Your task to perform on an android device: Open the calendar app, open the side menu, and click the "Day" option Image 0: 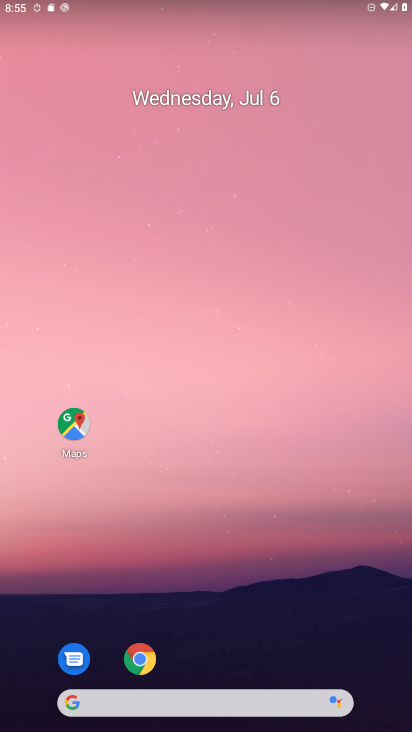
Step 0: drag from (371, 626) to (373, 233)
Your task to perform on an android device: Open the calendar app, open the side menu, and click the "Day" option Image 1: 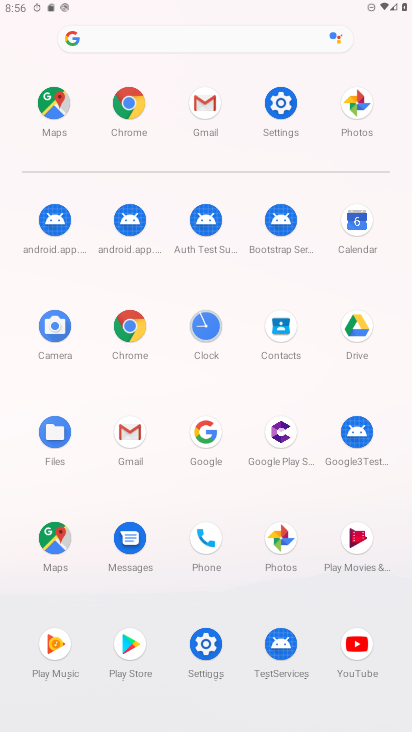
Step 1: click (366, 228)
Your task to perform on an android device: Open the calendar app, open the side menu, and click the "Day" option Image 2: 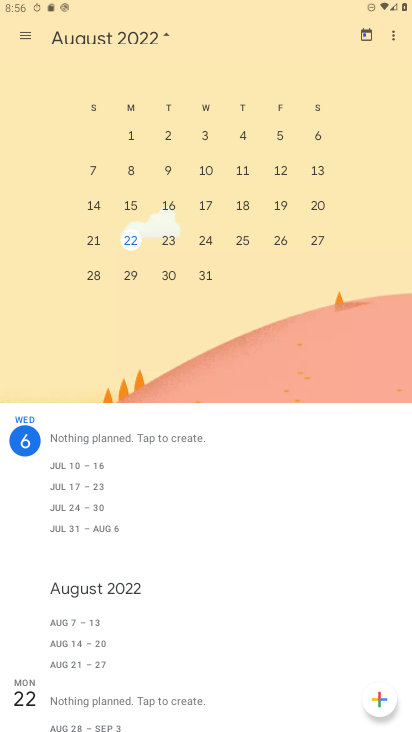
Step 2: click (27, 39)
Your task to perform on an android device: Open the calendar app, open the side menu, and click the "Day" option Image 3: 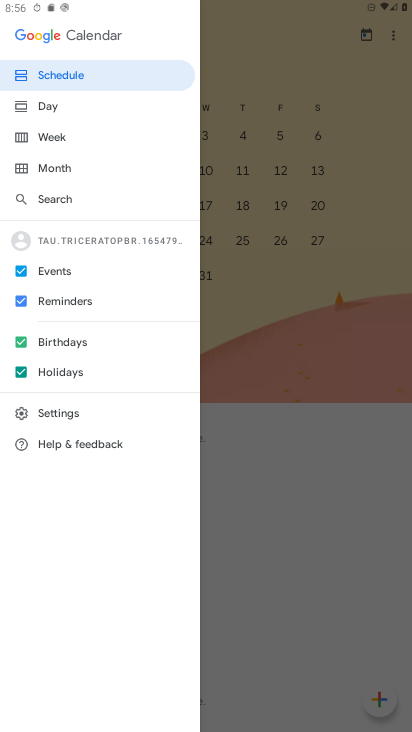
Step 3: click (60, 105)
Your task to perform on an android device: Open the calendar app, open the side menu, and click the "Day" option Image 4: 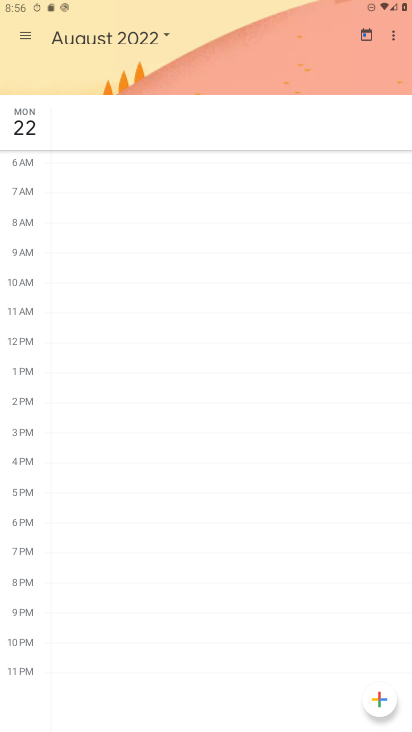
Step 4: task complete